Your task to perform on an android device: open app "Expedia: Hotels, Flights & Car" (install if not already installed) Image 0: 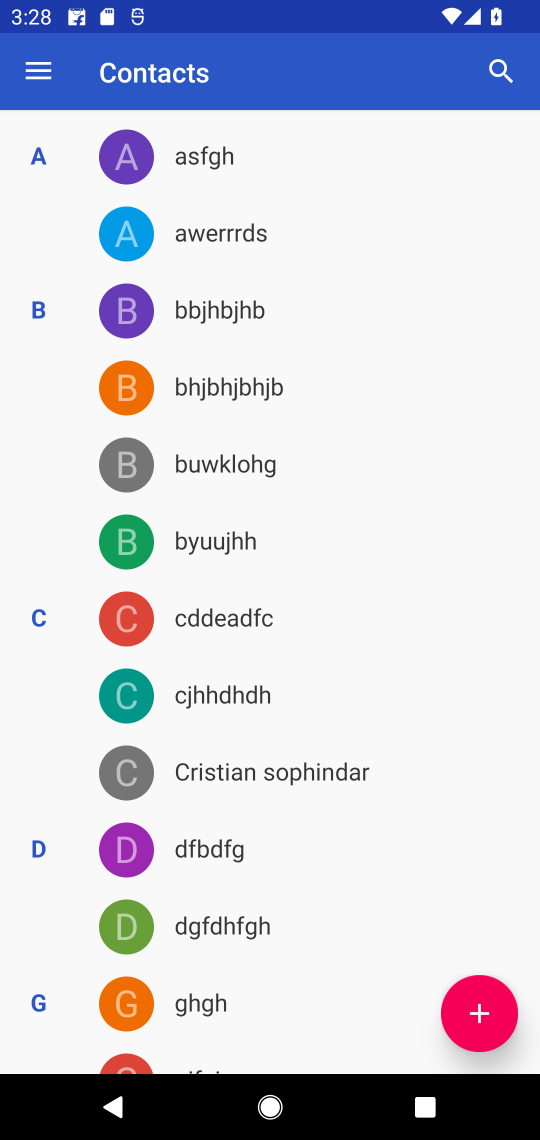
Step 0: press home button
Your task to perform on an android device: open app "Expedia: Hotels, Flights & Car" (install if not already installed) Image 1: 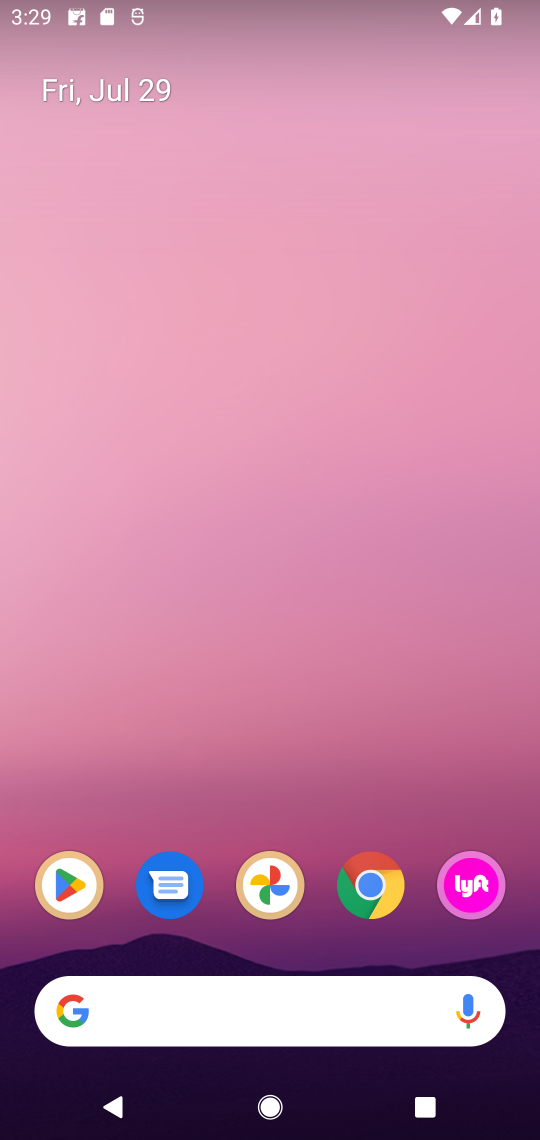
Step 1: click (74, 879)
Your task to perform on an android device: open app "Expedia: Hotels, Flights & Car" (install if not already installed) Image 2: 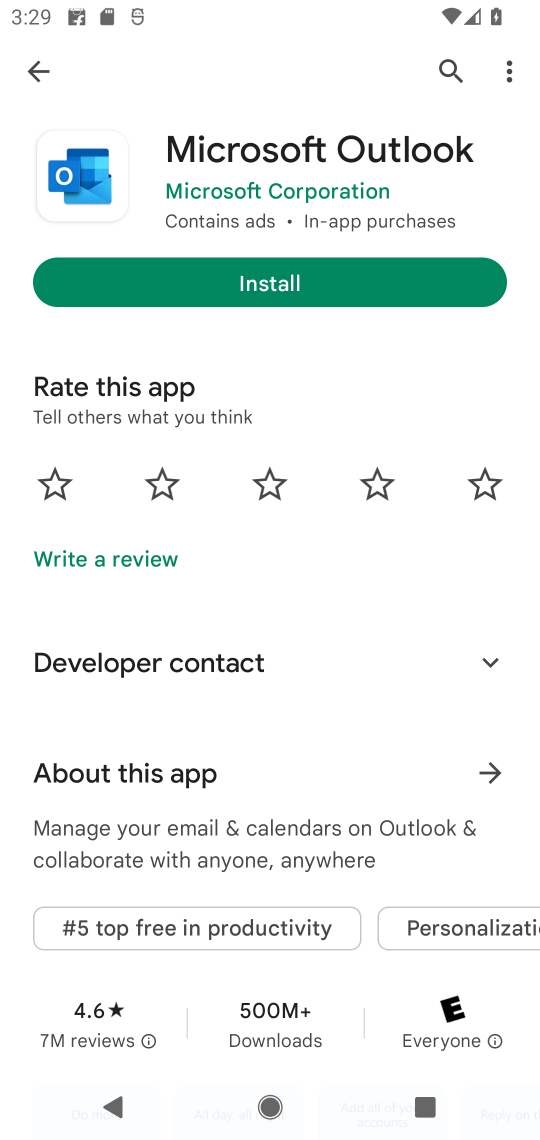
Step 2: click (456, 67)
Your task to perform on an android device: open app "Expedia: Hotels, Flights & Car" (install if not already installed) Image 3: 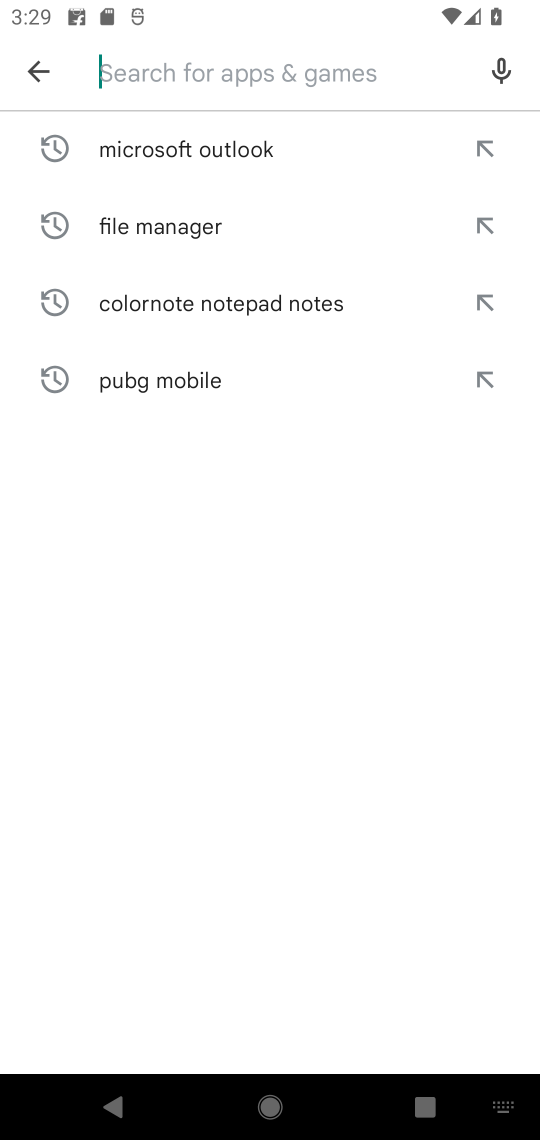
Step 3: click (456, 67)
Your task to perform on an android device: open app "Expedia: Hotels, Flights & Car" (install if not already installed) Image 4: 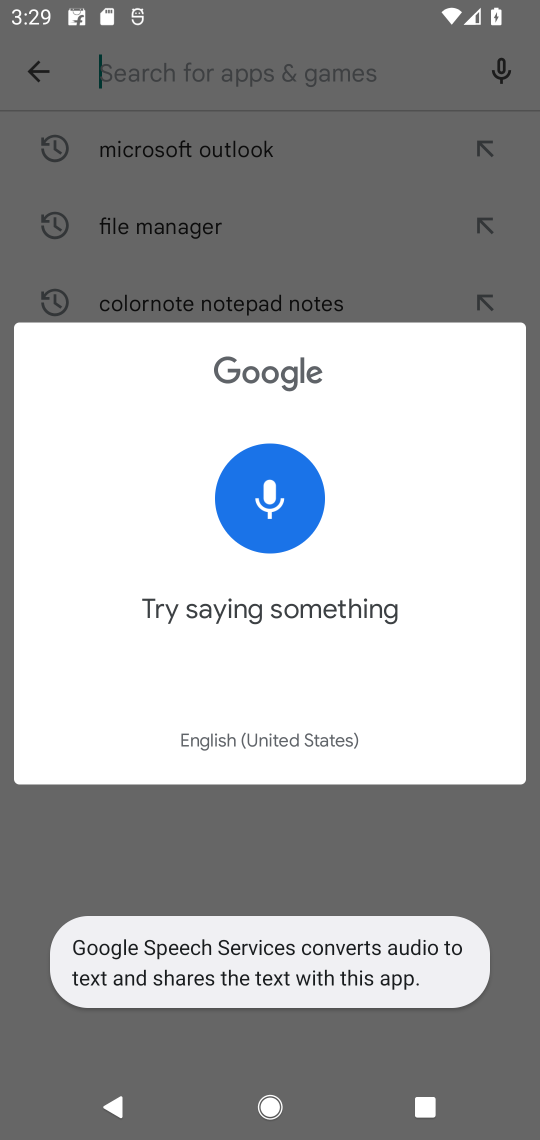
Step 4: type "Expedia: Hotels, Flights & Car"
Your task to perform on an android device: open app "Expedia: Hotels, Flights & Car" (install if not already installed) Image 5: 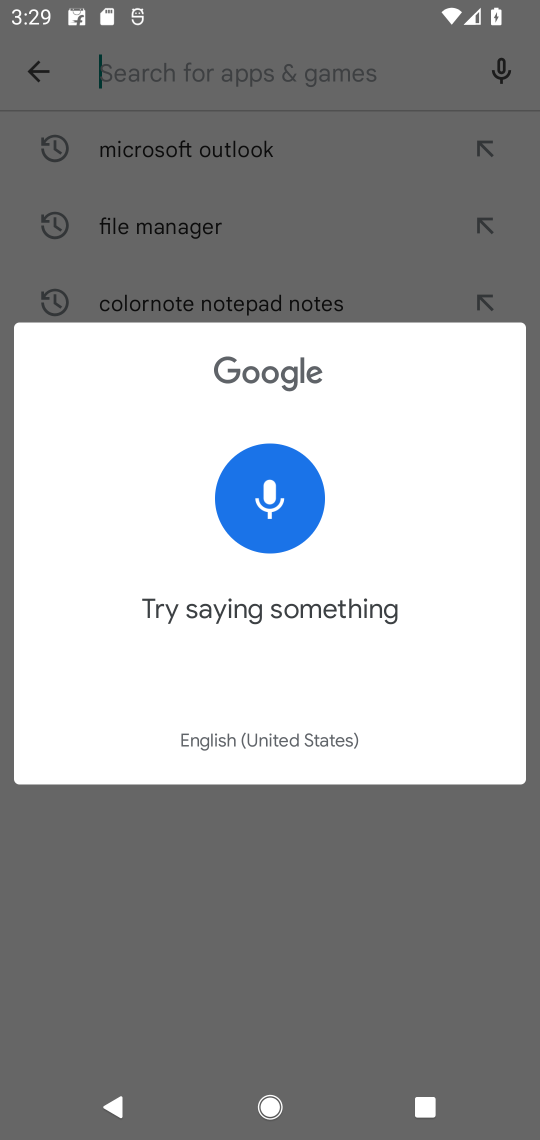
Step 5: click (161, 125)
Your task to perform on an android device: open app "Expedia: Hotels, Flights & Car" (install if not already installed) Image 6: 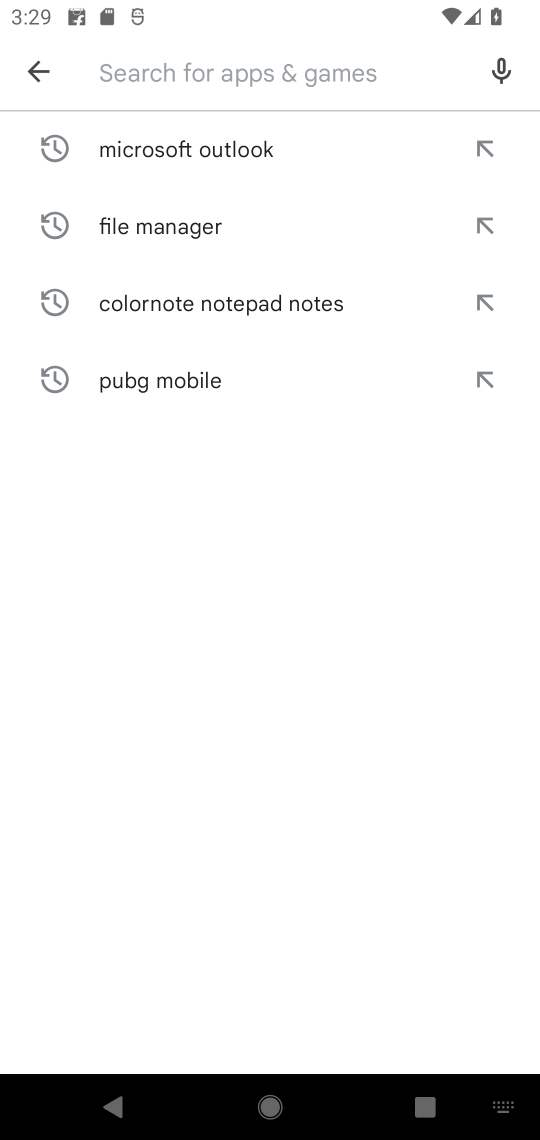
Step 6: type "Expedia: Hotels, Flights & Car"
Your task to perform on an android device: open app "Expedia: Hotels, Flights & Car" (install if not already installed) Image 7: 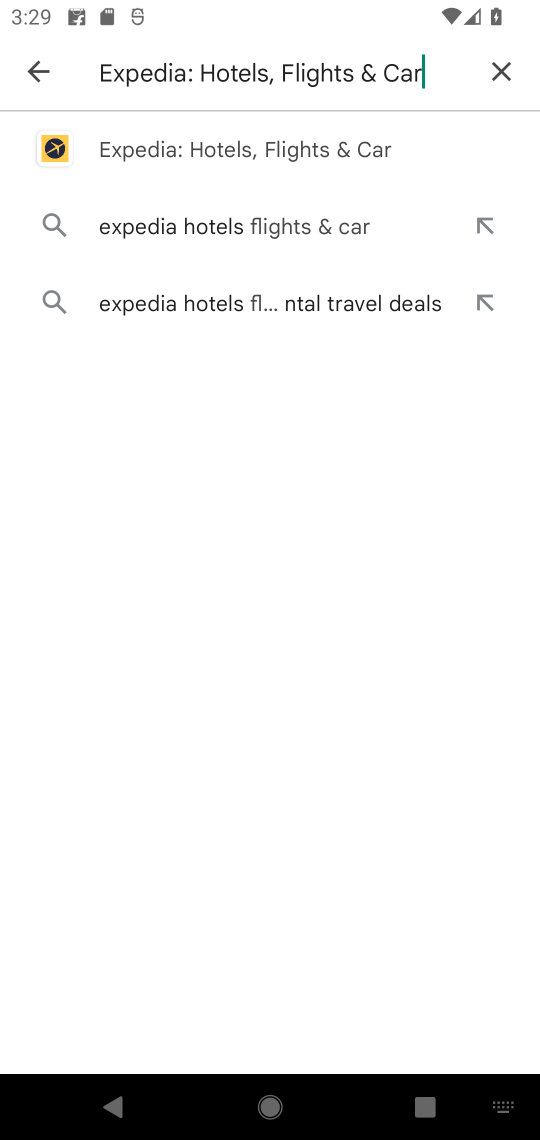
Step 7: click (351, 154)
Your task to perform on an android device: open app "Expedia: Hotels, Flights & Car" (install if not already installed) Image 8: 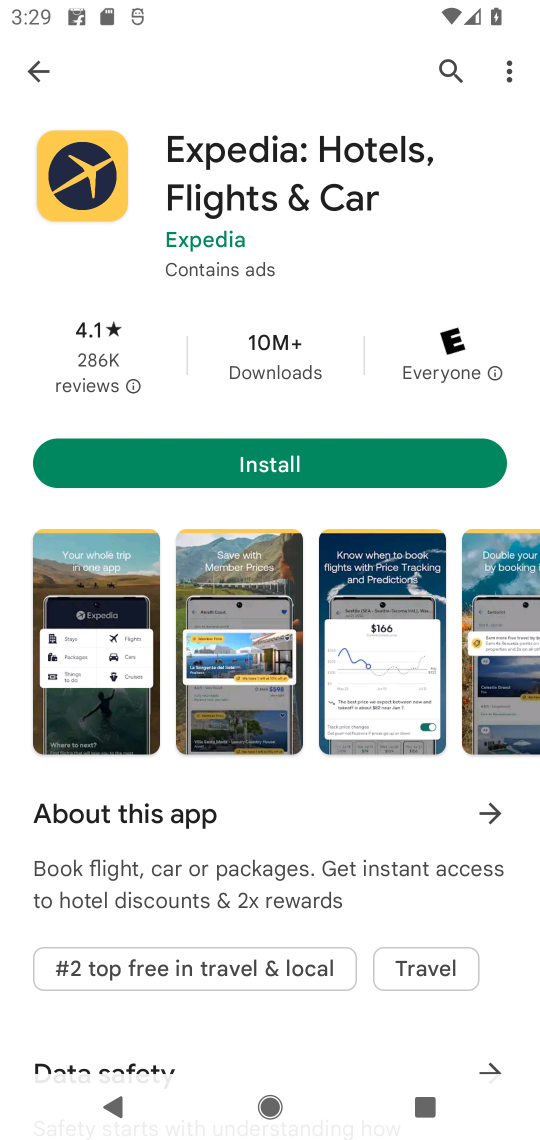
Step 8: click (389, 449)
Your task to perform on an android device: open app "Expedia: Hotels, Flights & Car" (install if not already installed) Image 9: 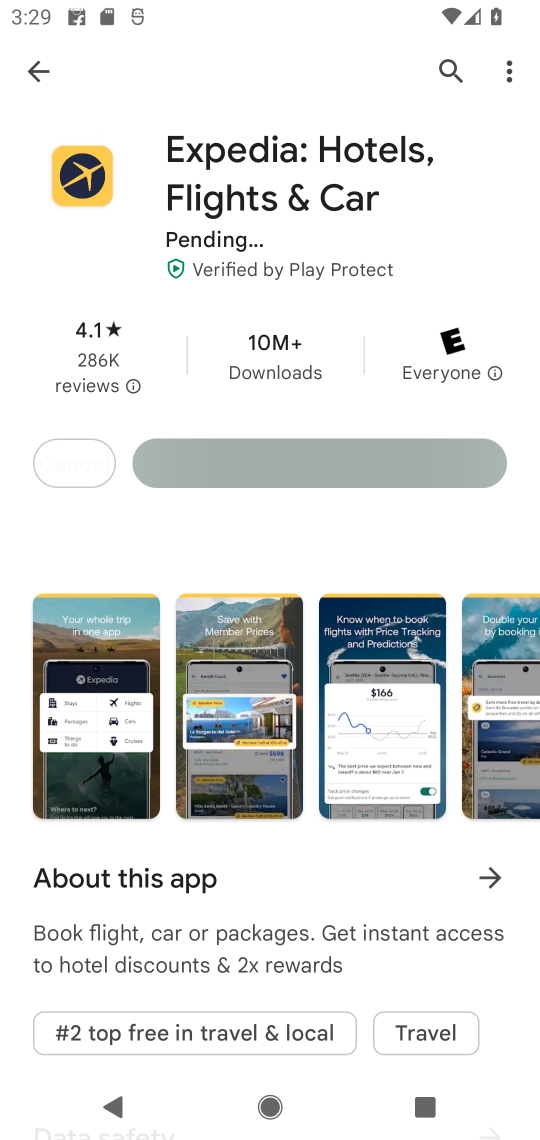
Step 9: click (389, 449)
Your task to perform on an android device: open app "Expedia: Hotels, Flights & Car" (install if not already installed) Image 10: 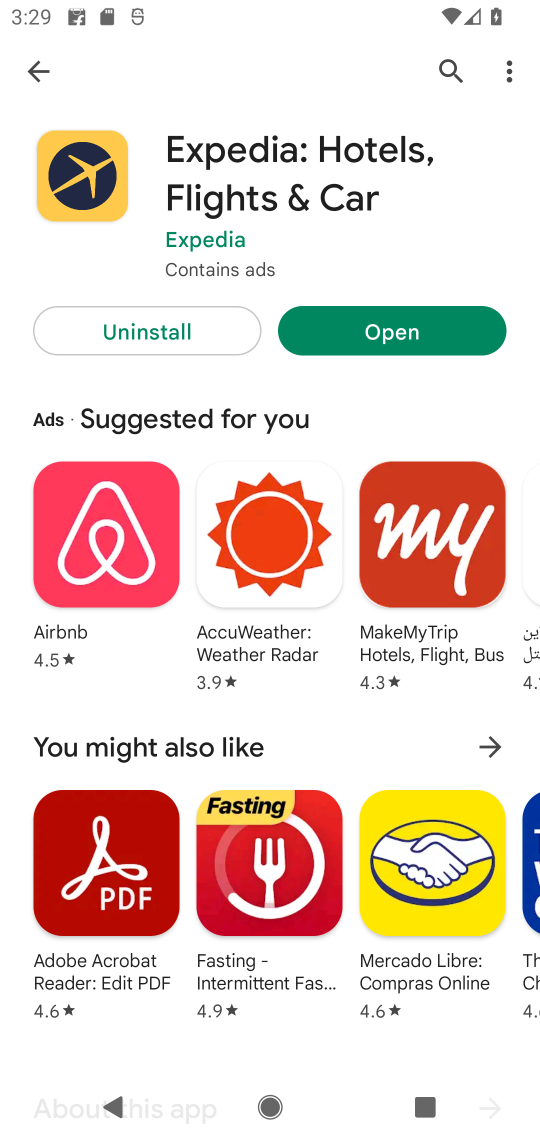
Step 10: click (401, 325)
Your task to perform on an android device: open app "Expedia: Hotels, Flights & Car" (install if not already installed) Image 11: 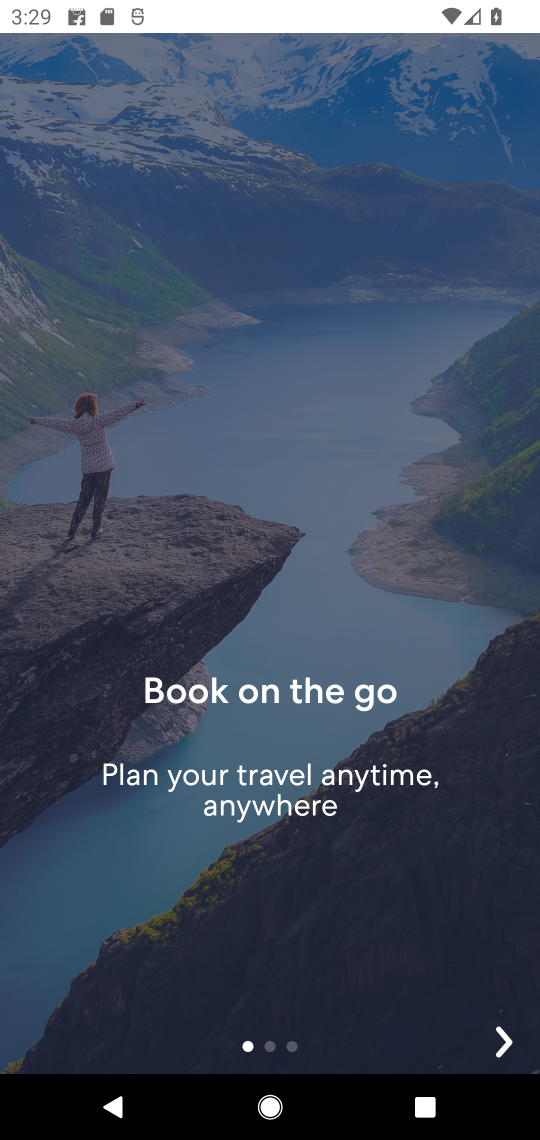
Step 11: task complete